Your task to perform on an android device: open a bookmark in the chrome app Image 0: 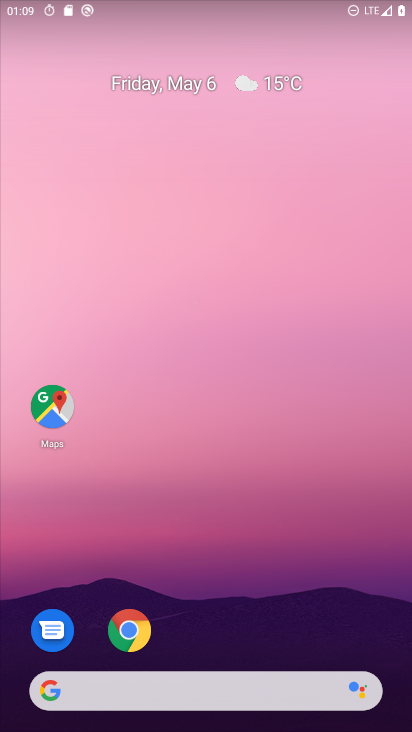
Step 0: click (133, 629)
Your task to perform on an android device: open a bookmark in the chrome app Image 1: 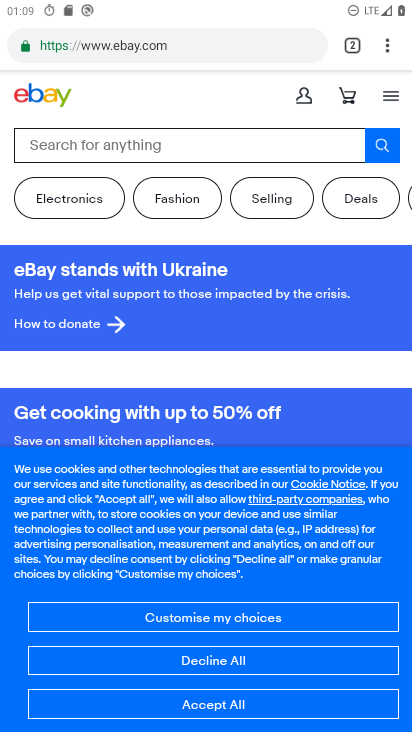
Step 1: click (194, 49)
Your task to perform on an android device: open a bookmark in the chrome app Image 2: 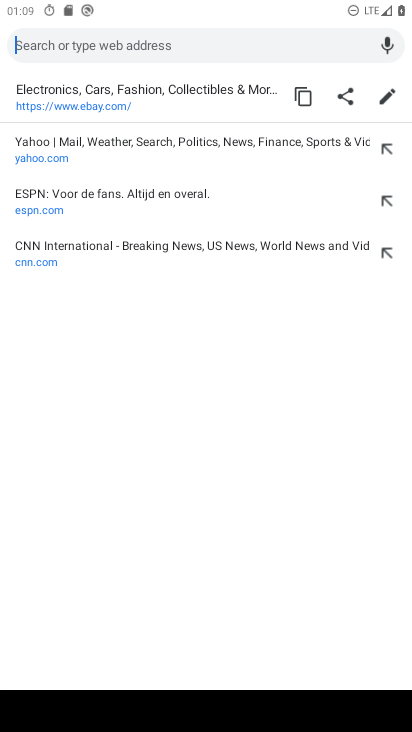
Step 2: click (254, 404)
Your task to perform on an android device: open a bookmark in the chrome app Image 3: 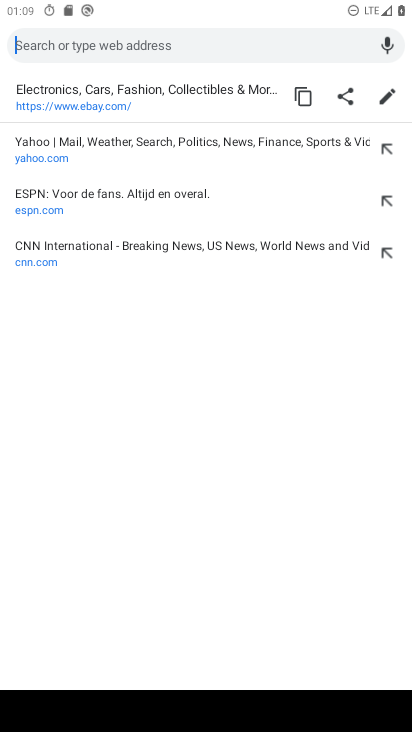
Step 3: press back button
Your task to perform on an android device: open a bookmark in the chrome app Image 4: 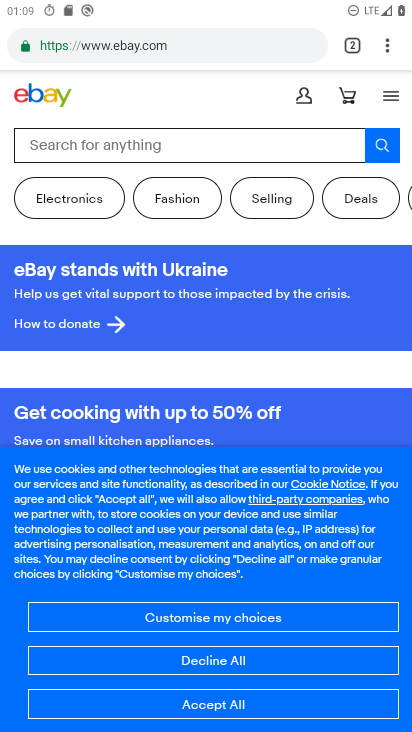
Step 4: drag from (387, 40) to (276, 225)
Your task to perform on an android device: open a bookmark in the chrome app Image 5: 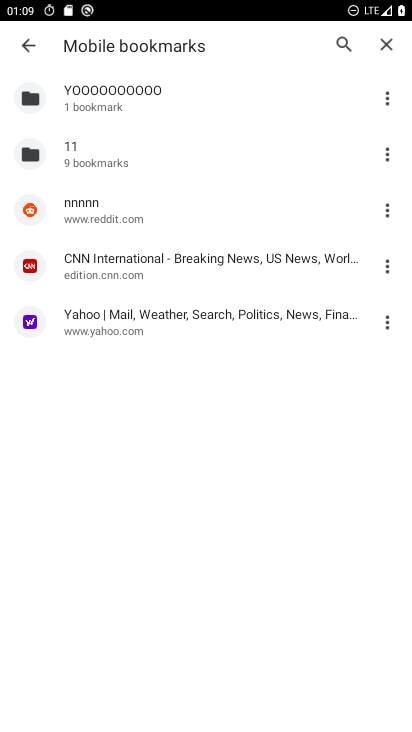
Step 5: click (113, 206)
Your task to perform on an android device: open a bookmark in the chrome app Image 6: 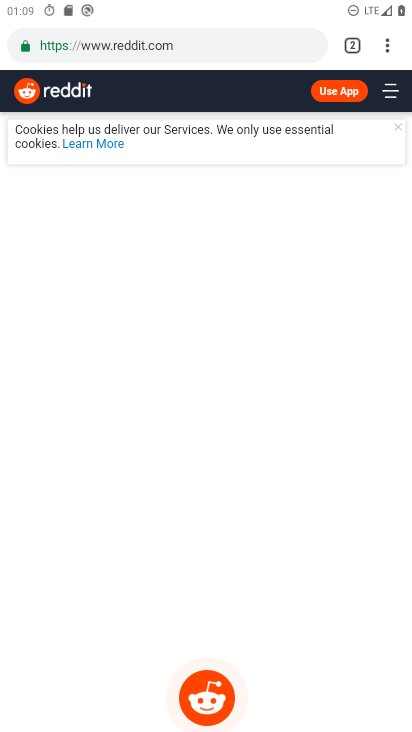
Step 6: task complete